Your task to perform on an android device: Go to network settings Image 0: 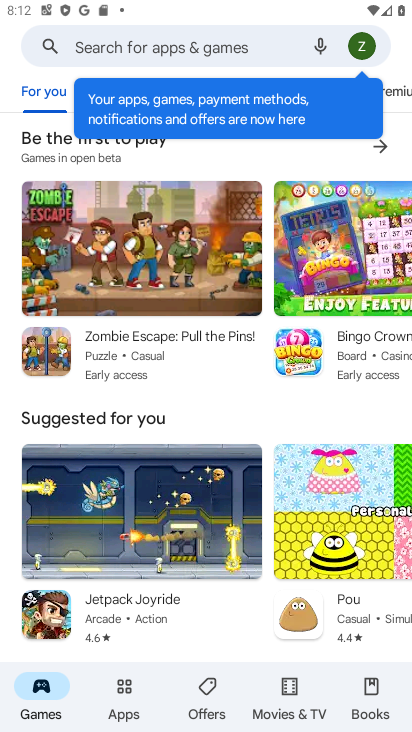
Step 0: press home button
Your task to perform on an android device: Go to network settings Image 1: 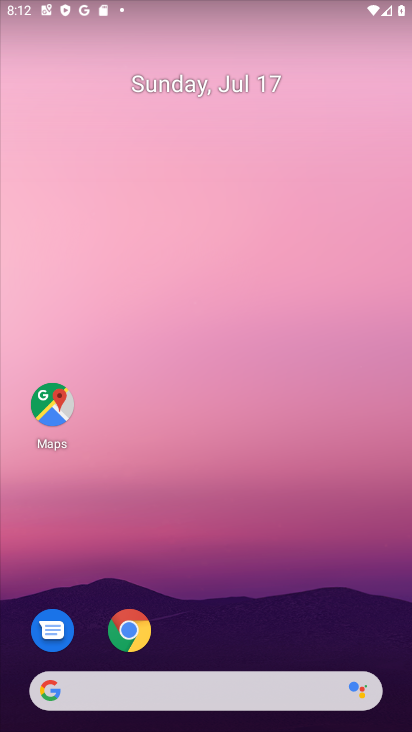
Step 1: drag from (202, 530) to (239, 108)
Your task to perform on an android device: Go to network settings Image 2: 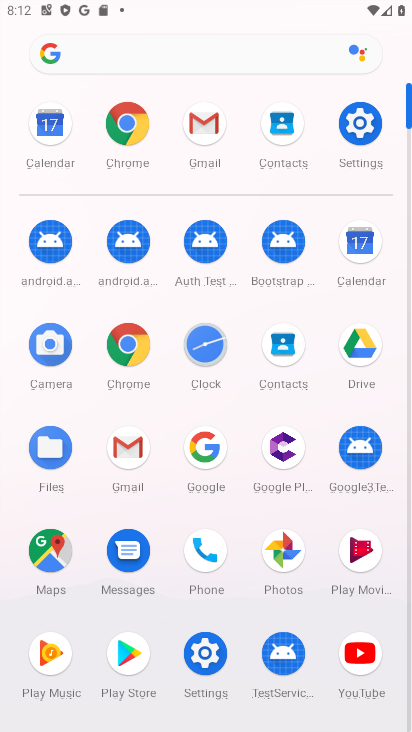
Step 2: click (368, 124)
Your task to perform on an android device: Go to network settings Image 3: 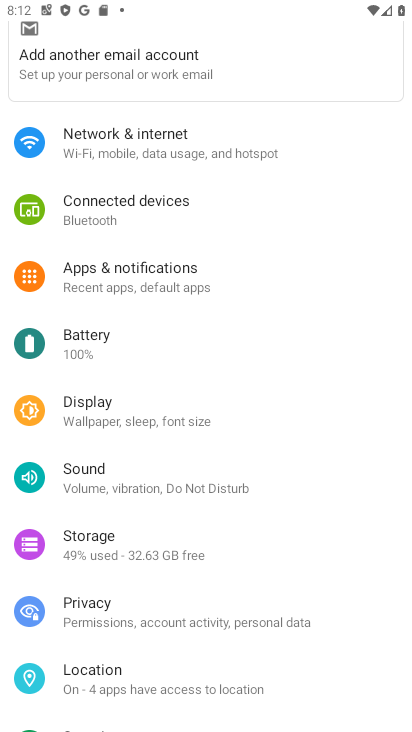
Step 3: click (108, 139)
Your task to perform on an android device: Go to network settings Image 4: 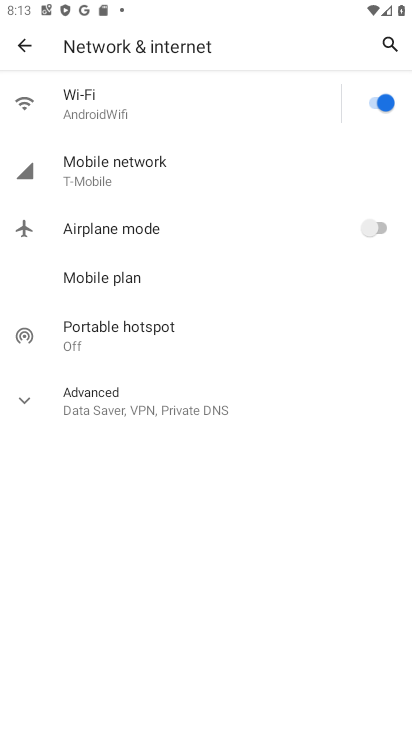
Step 4: task complete